Your task to perform on an android device: Find the nearest grocery store Image 0: 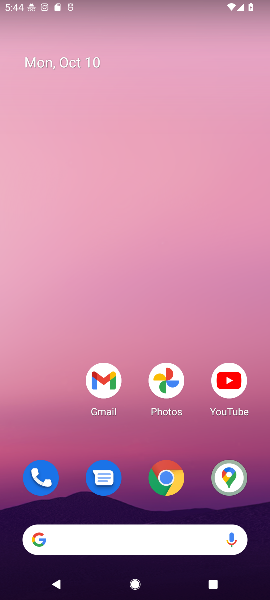
Step 0: click (134, 536)
Your task to perform on an android device: Find the nearest grocery store Image 1: 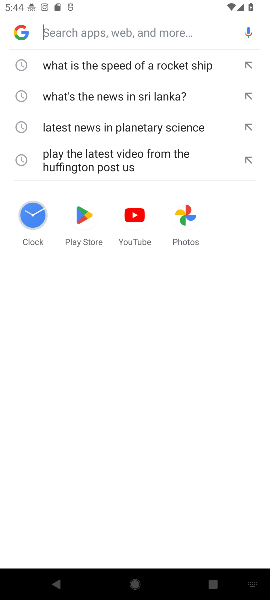
Step 1: type "Find the nearest grocery store"
Your task to perform on an android device: Find the nearest grocery store Image 2: 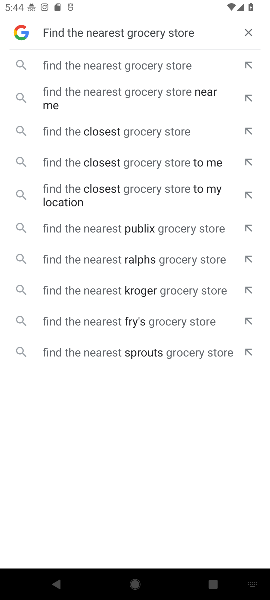
Step 2: click (155, 59)
Your task to perform on an android device: Find the nearest grocery store Image 3: 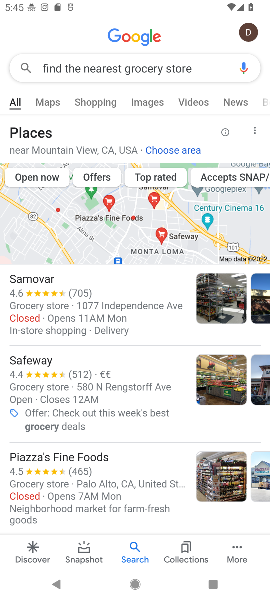
Step 3: task complete